Your task to perform on an android device: Search for seafood restaurants on Google Maps Image 0: 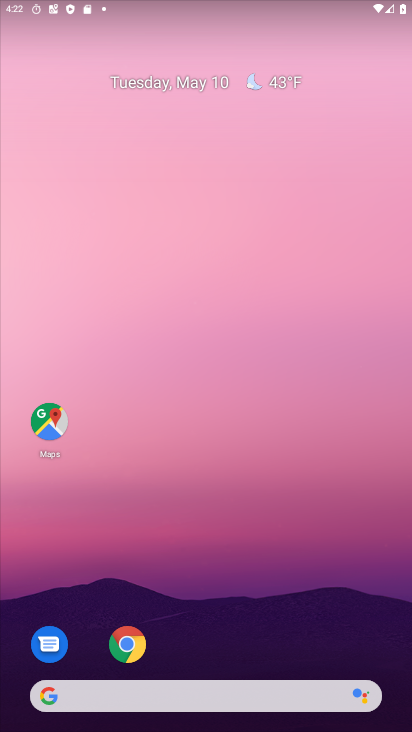
Step 0: click (58, 416)
Your task to perform on an android device: Search for seafood restaurants on Google Maps Image 1: 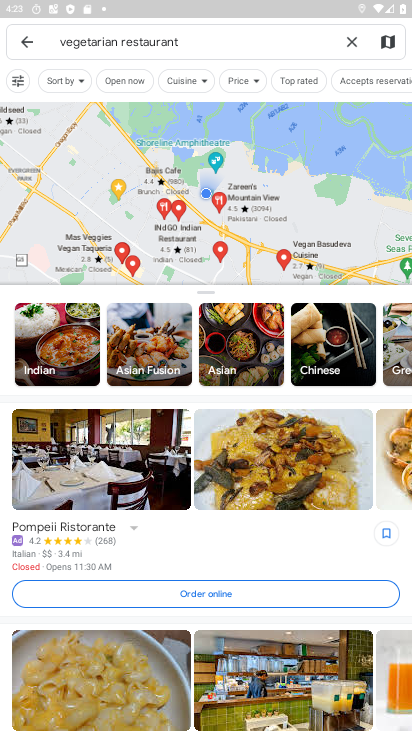
Step 1: click (344, 43)
Your task to perform on an android device: Search for seafood restaurants on Google Maps Image 2: 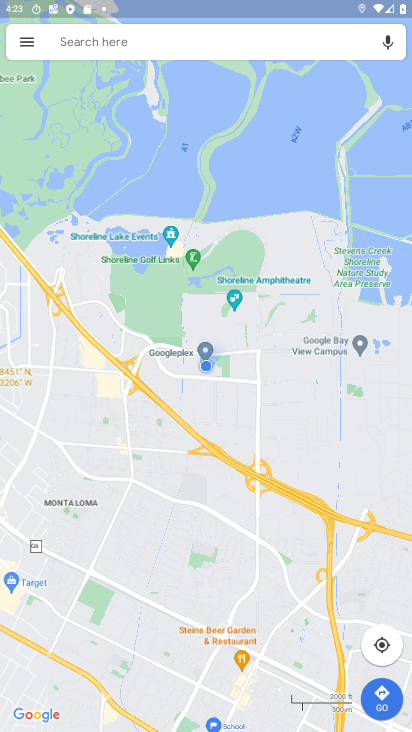
Step 2: click (126, 46)
Your task to perform on an android device: Search for seafood restaurants on Google Maps Image 3: 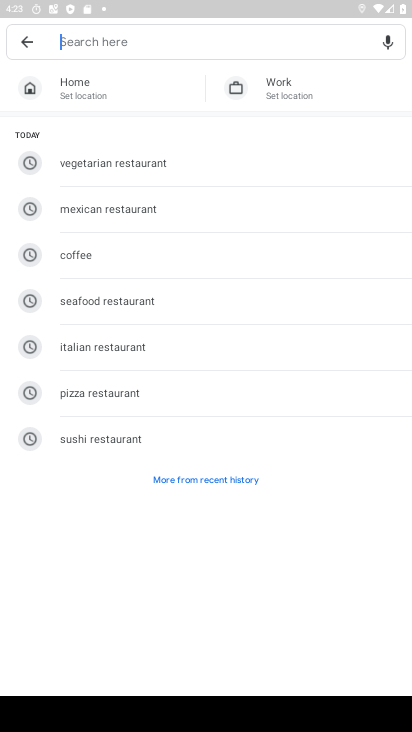
Step 3: click (138, 300)
Your task to perform on an android device: Search for seafood restaurants on Google Maps Image 4: 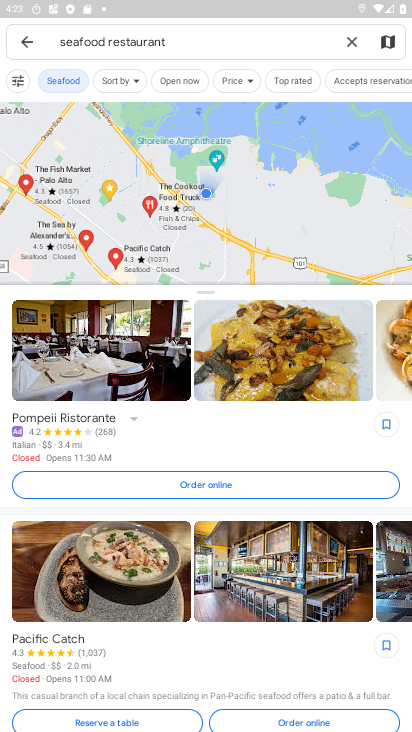
Step 4: task complete